Your task to perform on an android device: clear history in the chrome app Image 0: 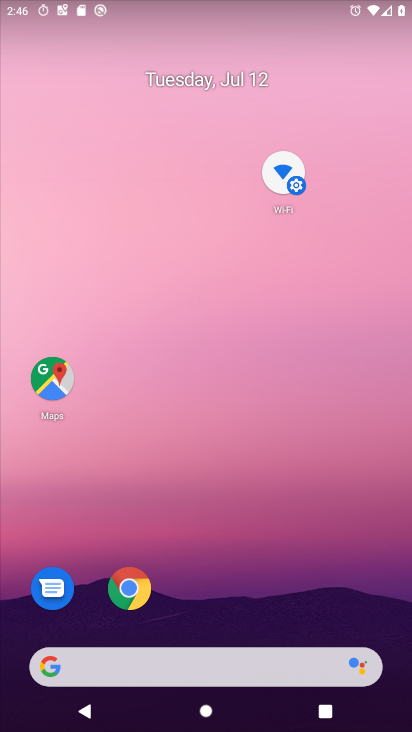
Step 0: drag from (198, 610) to (284, 119)
Your task to perform on an android device: clear history in the chrome app Image 1: 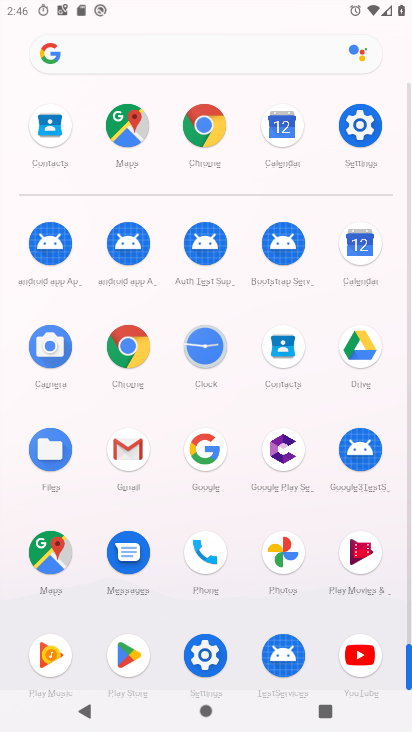
Step 1: click (119, 338)
Your task to perform on an android device: clear history in the chrome app Image 2: 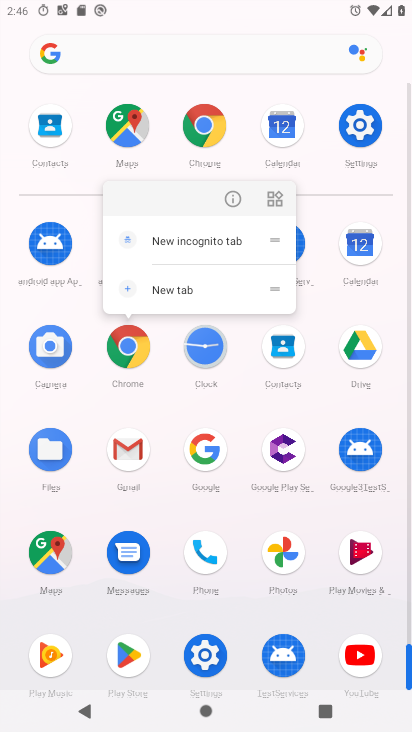
Step 2: click (235, 195)
Your task to perform on an android device: clear history in the chrome app Image 3: 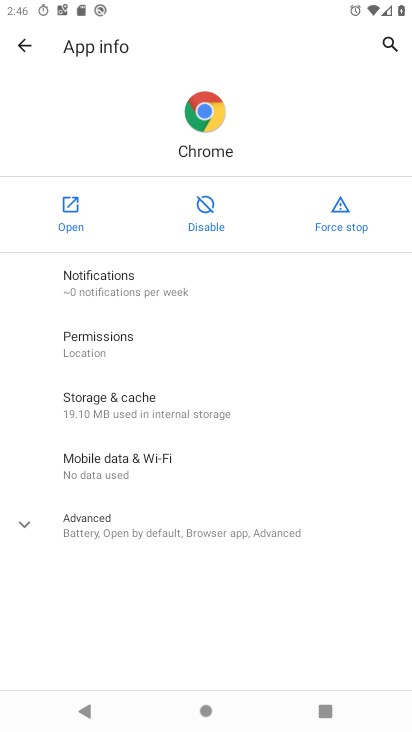
Step 3: click (70, 219)
Your task to perform on an android device: clear history in the chrome app Image 4: 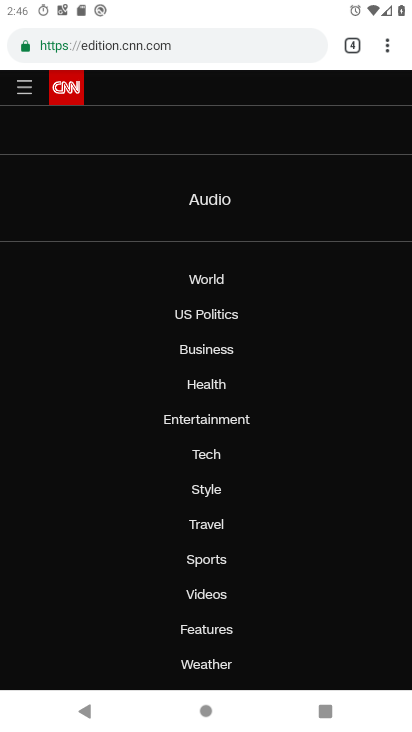
Step 4: click (384, 46)
Your task to perform on an android device: clear history in the chrome app Image 5: 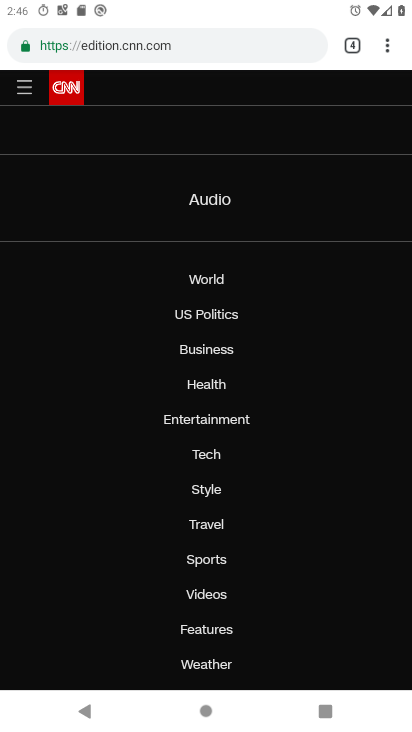
Step 5: click (386, 55)
Your task to perform on an android device: clear history in the chrome app Image 6: 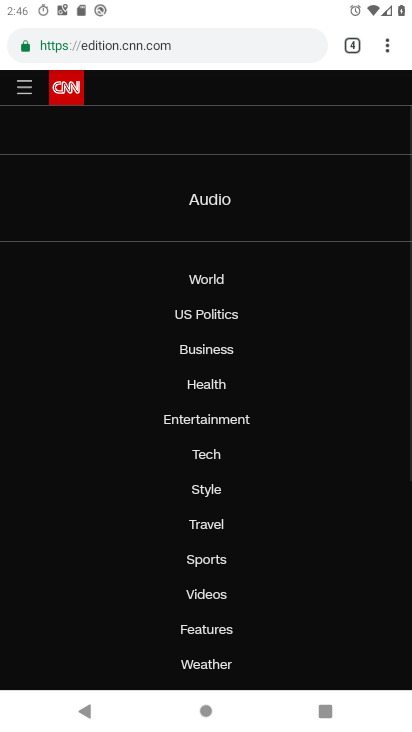
Step 6: drag from (385, 54) to (244, 251)
Your task to perform on an android device: clear history in the chrome app Image 7: 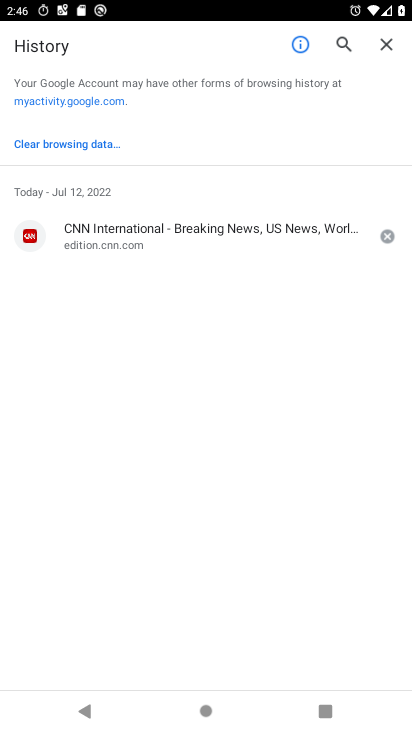
Step 7: click (34, 146)
Your task to perform on an android device: clear history in the chrome app Image 8: 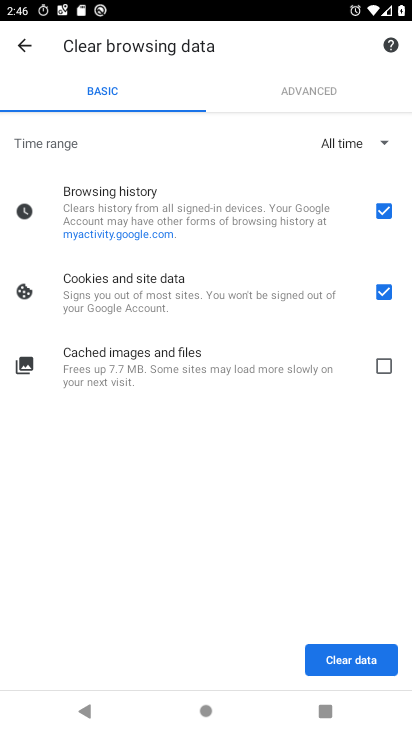
Step 8: click (374, 360)
Your task to perform on an android device: clear history in the chrome app Image 9: 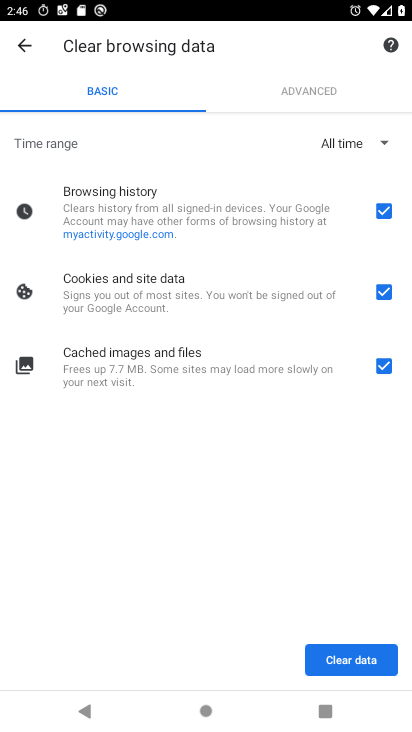
Step 9: click (316, 666)
Your task to perform on an android device: clear history in the chrome app Image 10: 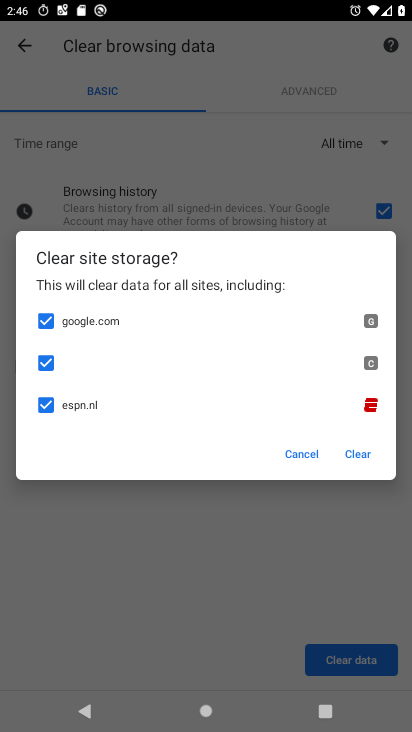
Step 10: click (354, 448)
Your task to perform on an android device: clear history in the chrome app Image 11: 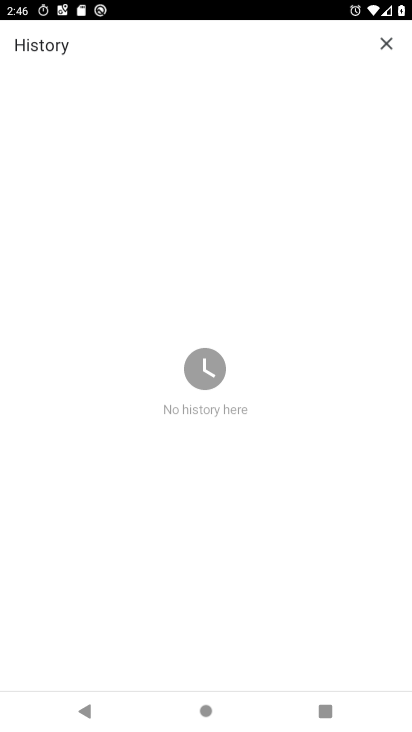
Step 11: task complete